Your task to perform on an android device: turn pop-ups on in chrome Image 0: 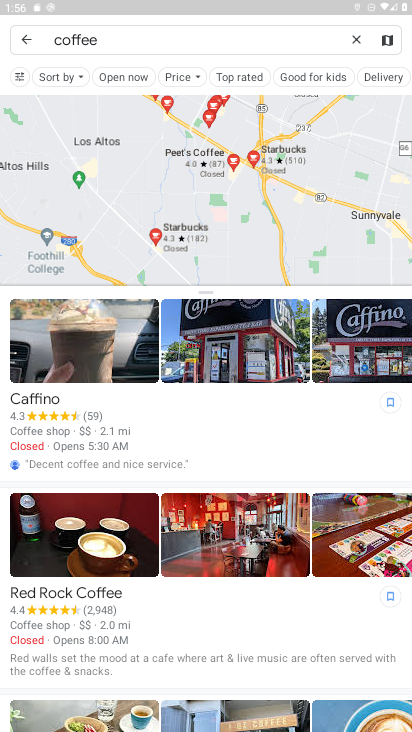
Step 0: press home button
Your task to perform on an android device: turn pop-ups on in chrome Image 1: 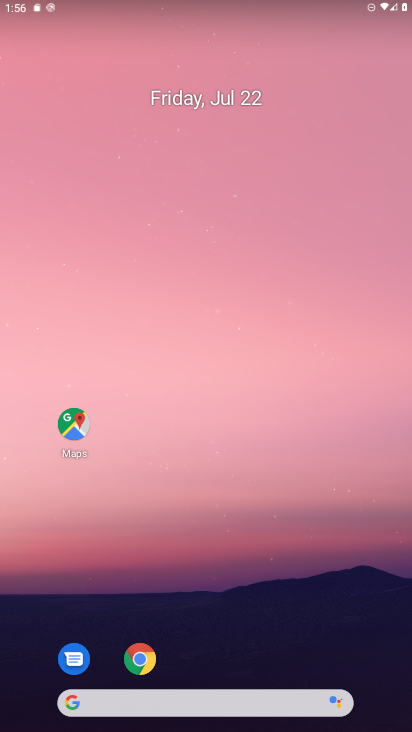
Step 1: click (140, 658)
Your task to perform on an android device: turn pop-ups on in chrome Image 2: 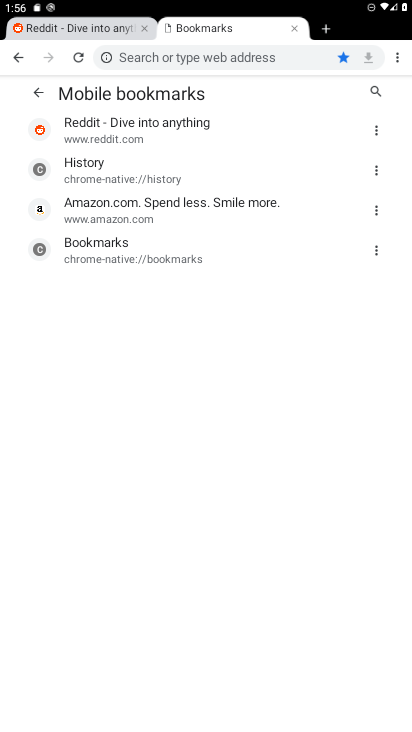
Step 2: click (399, 57)
Your task to perform on an android device: turn pop-ups on in chrome Image 3: 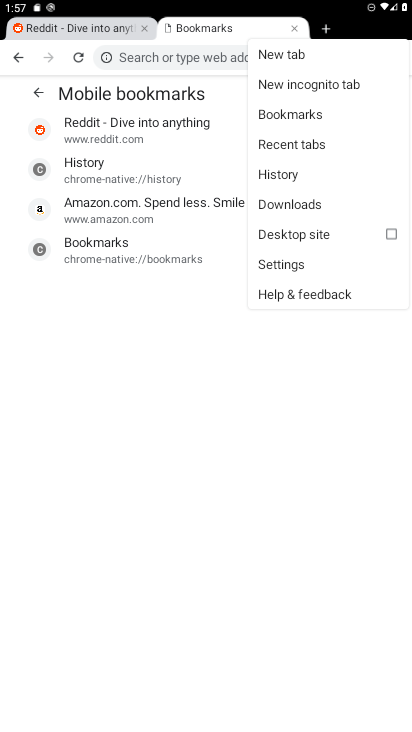
Step 3: click (284, 265)
Your task to perform on an android device: turn pop-ups on in chrome Image 4: 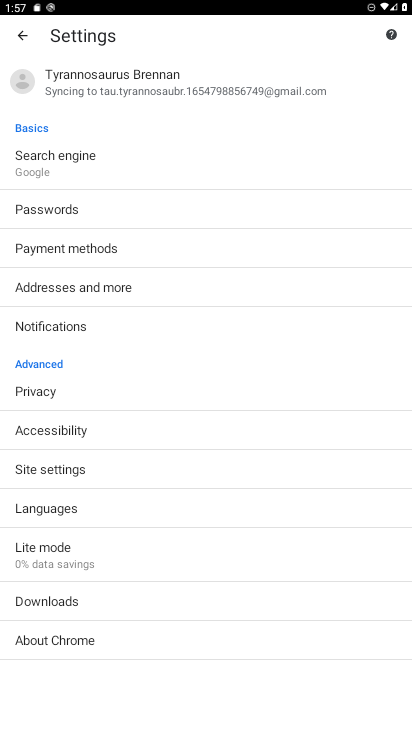
Step 4: click (55, 467)
Your task to perform on an android device: turn pop-ups on in chrome Image 5: 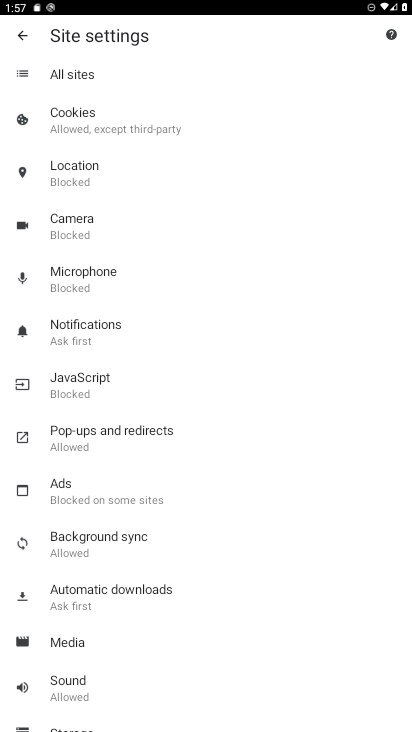
Step 5: click (77, 437)
Your task to perform on an android device: turn pop-ups on in chrome Image 6: 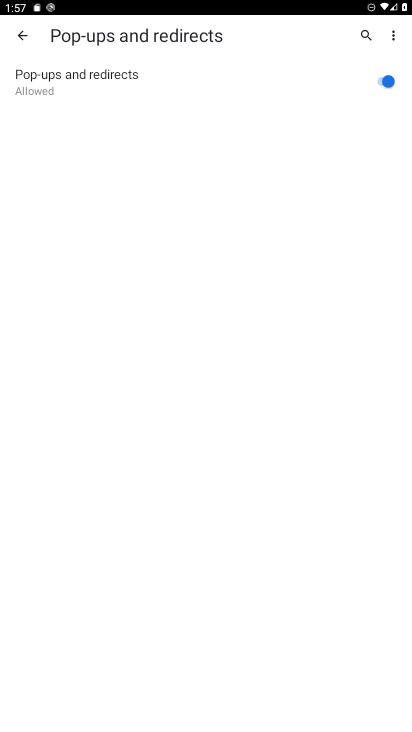
Step 6: task complete